Your task to perform on an android device: toggle translation in the chrome app Image 0: 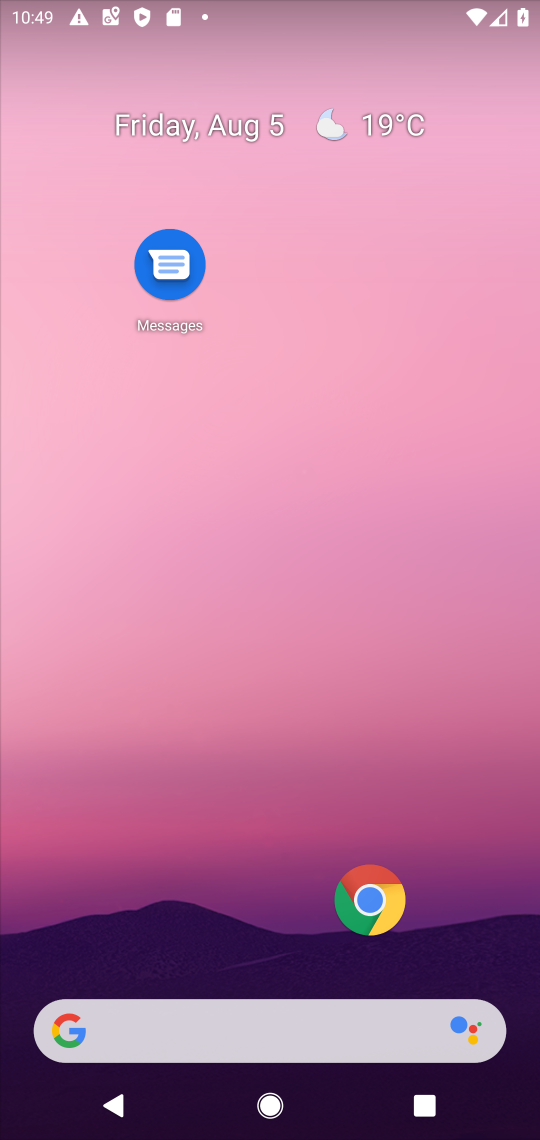
Step 0: press home button
Your task to perform on an android device: toggle translation in the chrome app Image 1: 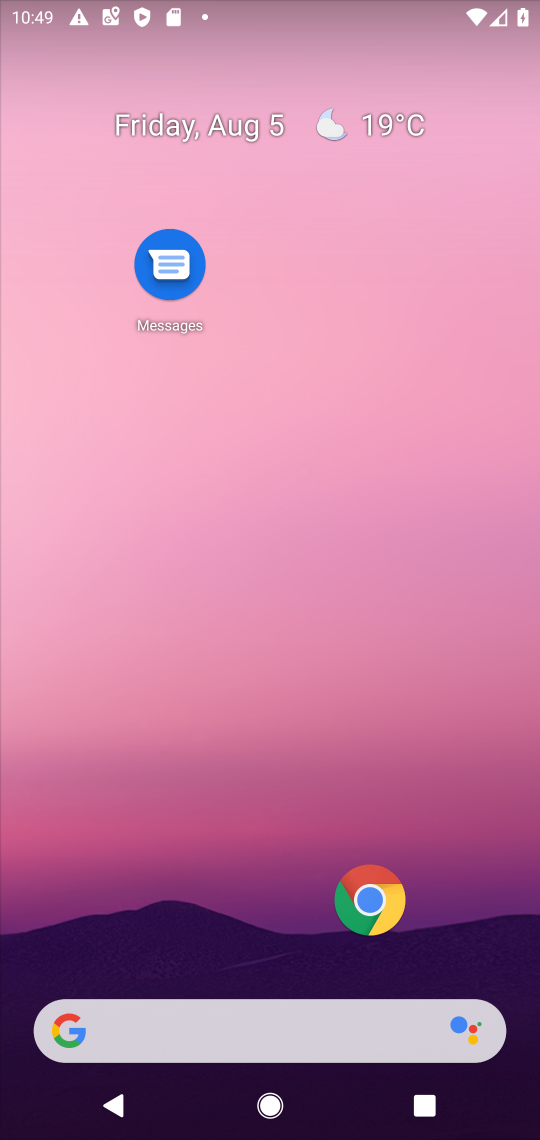
Step 1: drag from (268, 955) to (232, 821)
Your task to perform on an android device: toggle translation in the chrome app Image 2: 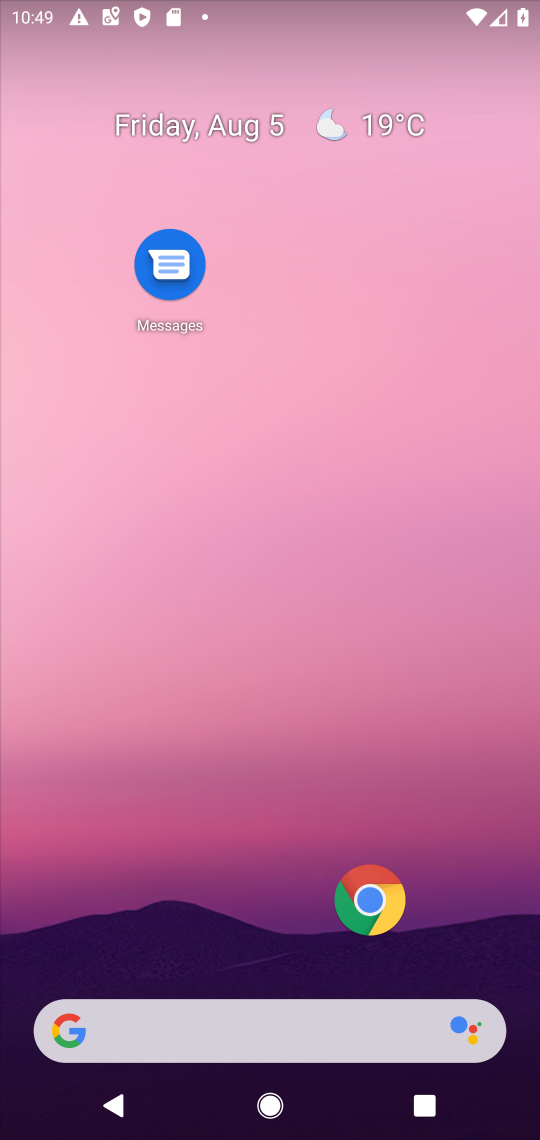
Step 2: click (414, 919)
Your task to perform on an android device: toggle translation in the chrome app Image 3: 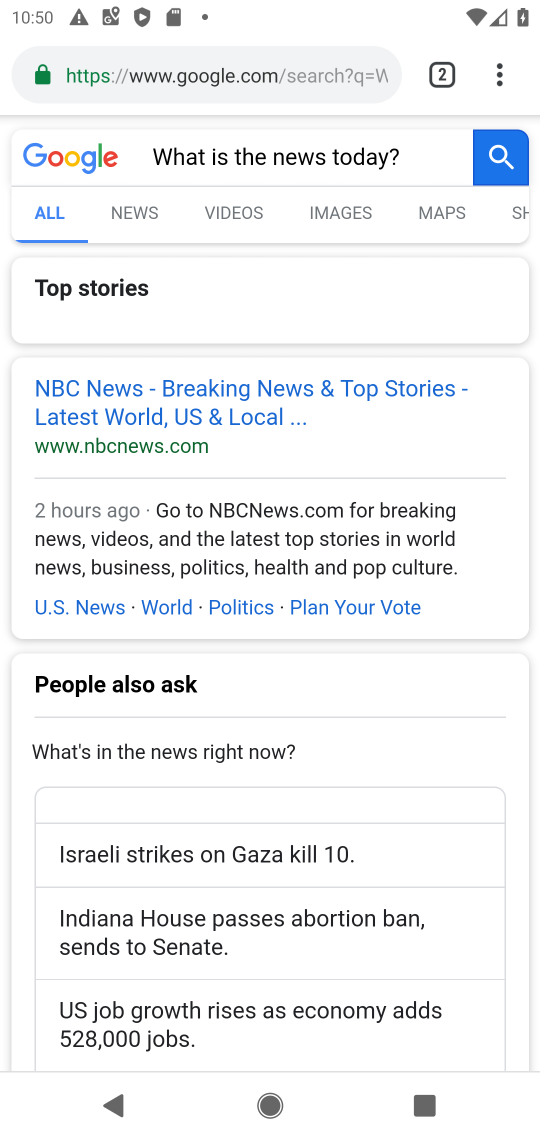
Step 3: drag from (494, 81) to (228, 823)
Your task to perform on an android device: toggle translation in the chrome app Image 4: 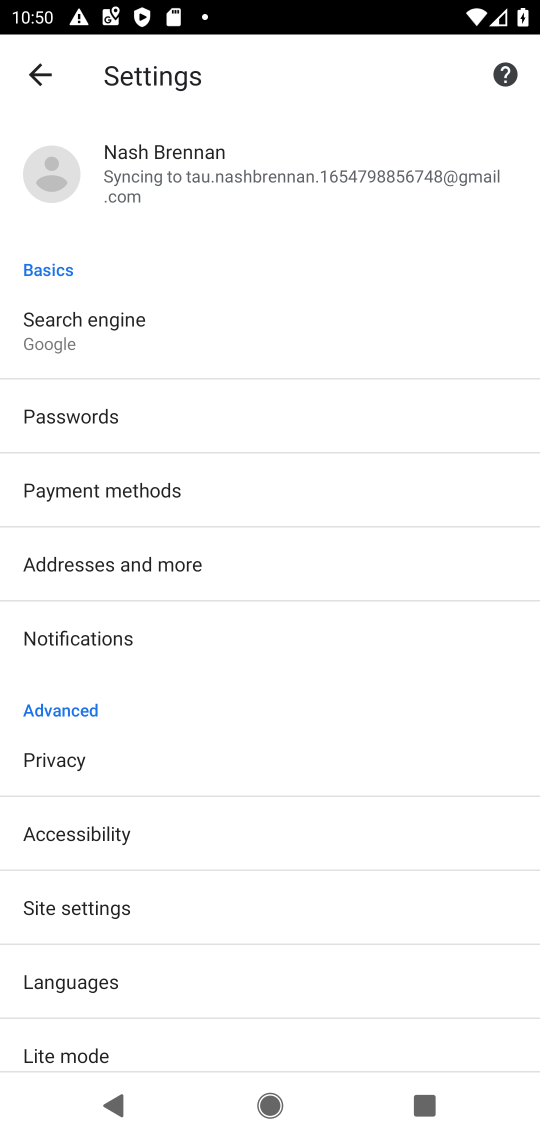
Step 4: click (106, 981)
Your task to perform on an android device: toggle translation in the chrome app Image 5: 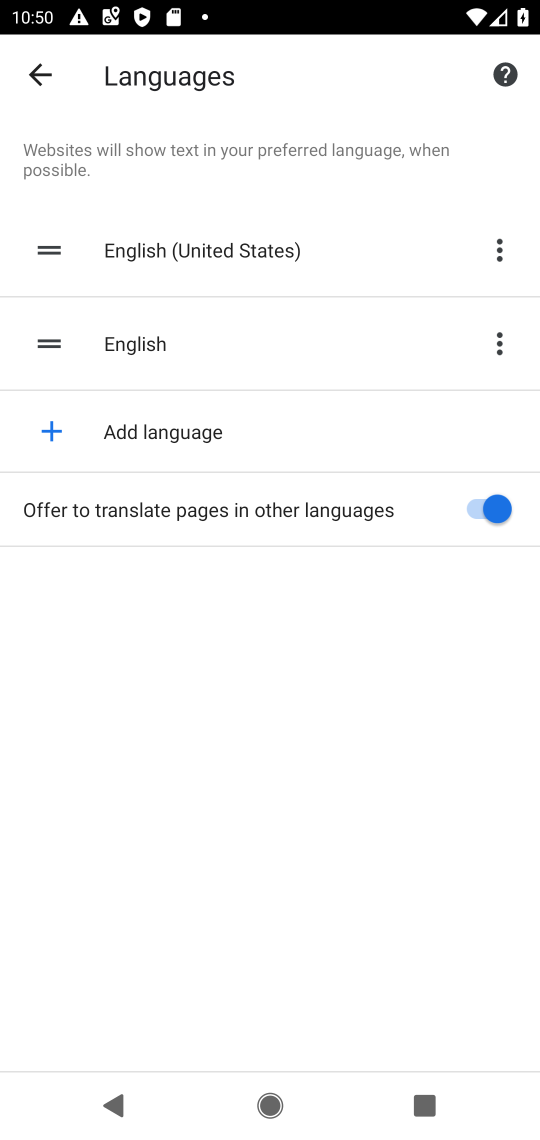
Step 5: click (151, 514)
Your task to perform on an android device: toggle translation in the chrome app Image 6: 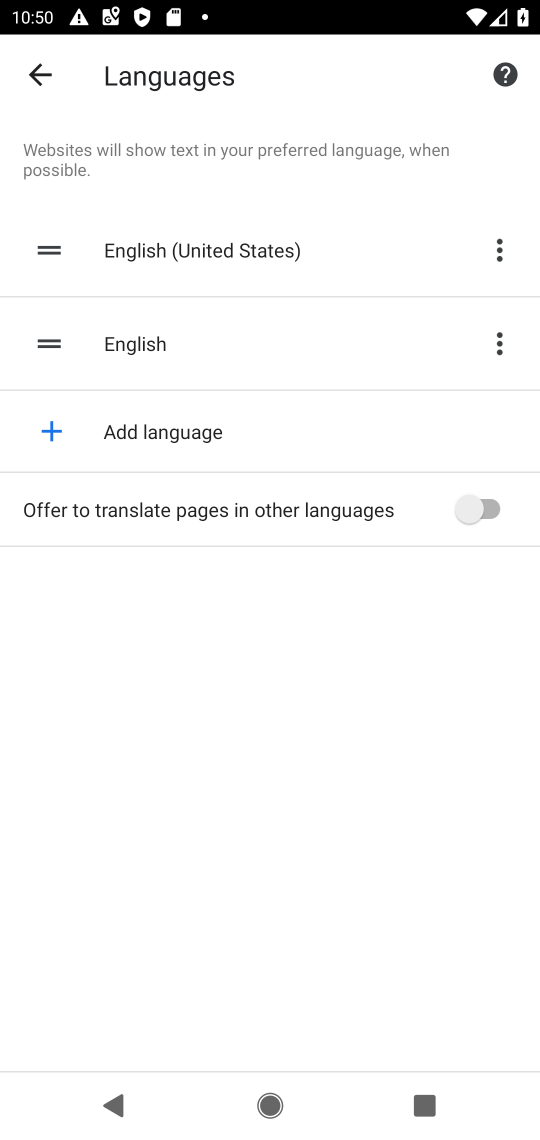
Step 6: task complete